Your task to perform on an android device: Go to settings Image 0: 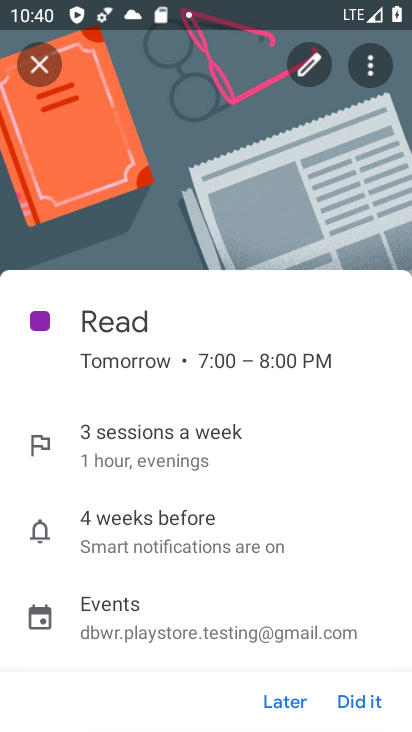
Step 0: press home button
Your task to perform on an android device: Go to settings Image 1: 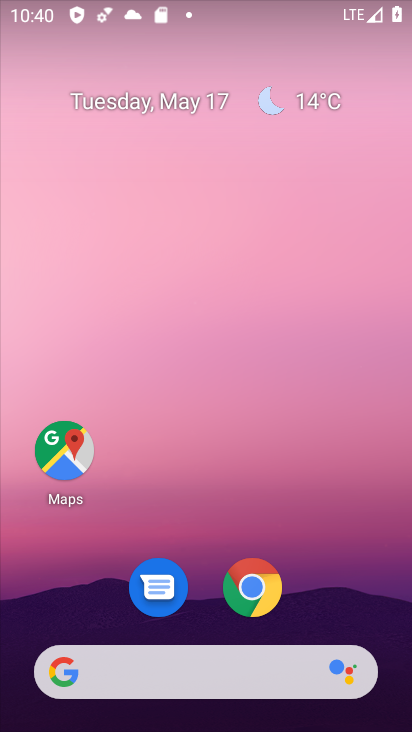
Step 1: drag from (298, 601) to (284, 57)
Your task to perform on an android device: Go to settings Image 2: 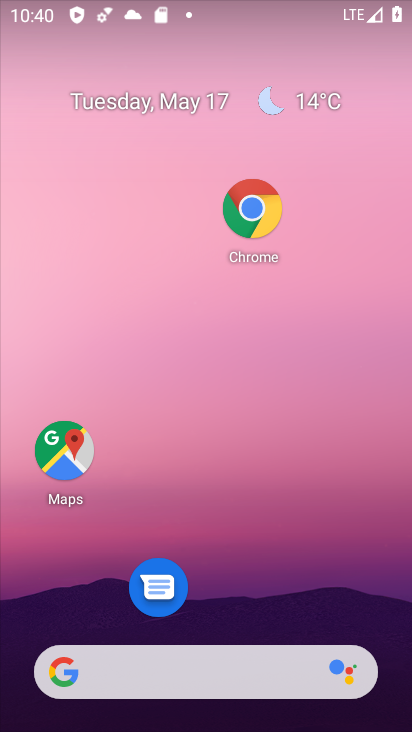
Step 2: drag from (313, 606) to (265, 93)
Your task to perform on an android device: Go to settings Image 3: 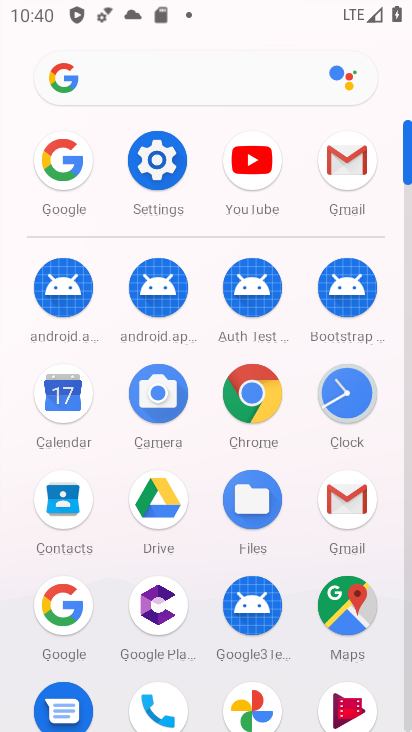
Step 3: click (165, 156)
Your task to perform on an android device: Go to settings Image 4: 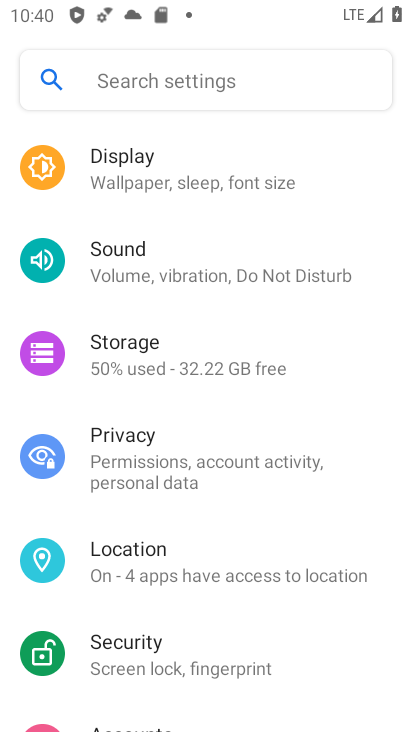
Step 4: task complete